Your task to perform on an android device: Open the Play Movies app and select the watchlist tab. Image 0: 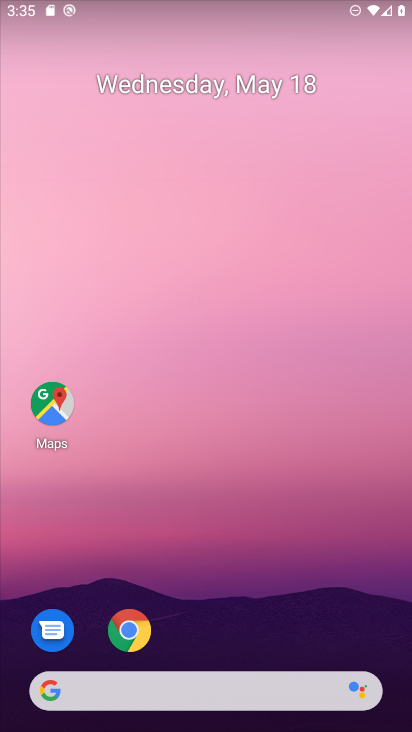
Step 0: drag from (223, 645) to (212, 78)
Your task to perform on an android device: Open the Play Movies app and select the watchlist tab. Image 1: 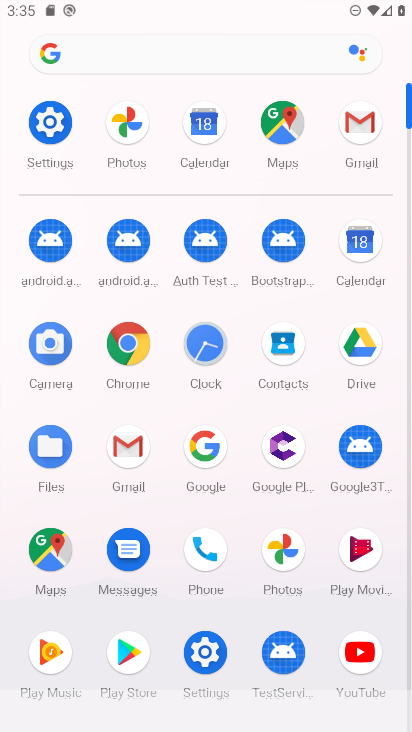
Step 1: click (367, 545)
Your task to perform on an android device: Open the Play Movies app and select the watchlist tab. Image 2: 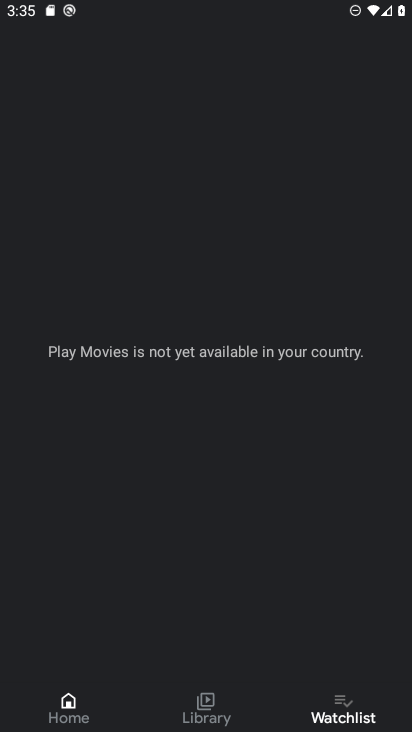
Step 2: click (341, 691)
Your task to perform on an android device: Open the Play Movies app and select the watchlist tab. Image 3: 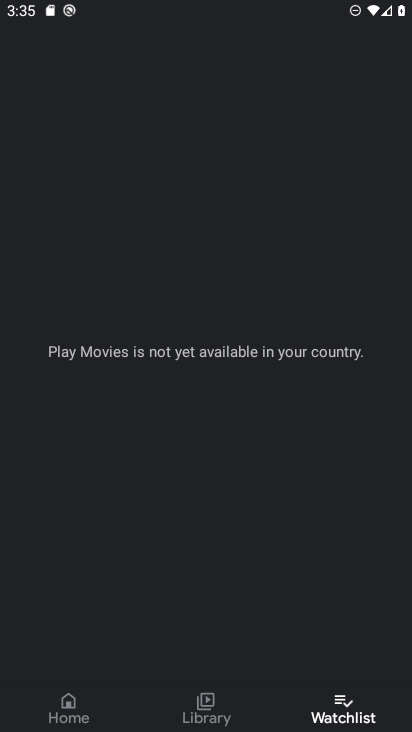
Step 3: task complete